Your task to perform on an android device: Open Yahoo.com Image 0: 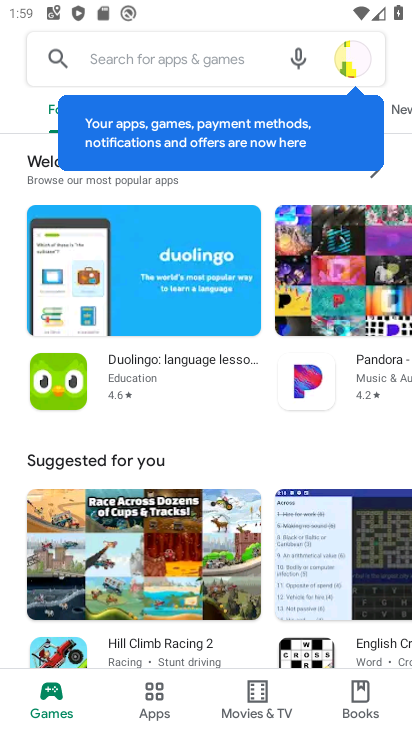
Step 0: press home button
Your task to perform on an android device: Open Yahoo.com Image 1: 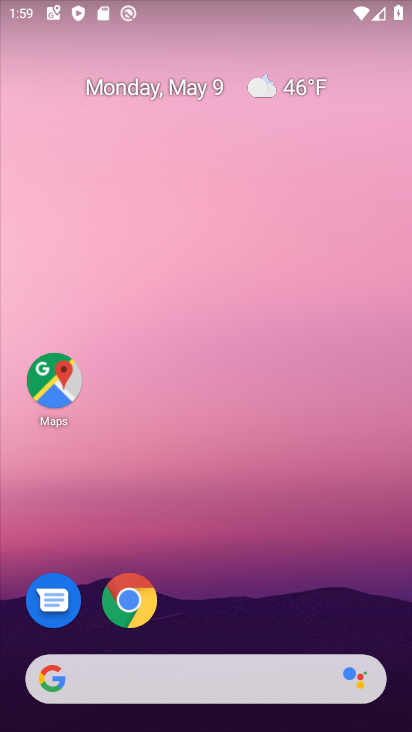
Step 1: click (135, 595)
Your task to perform on an android device: Open Yahoo.com Image 2: 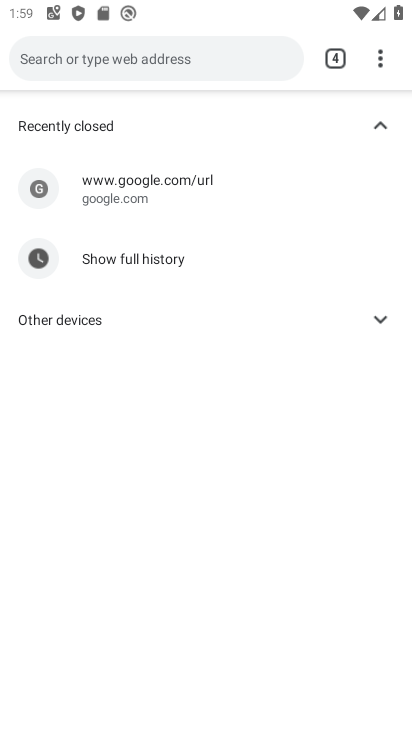
Step 2: click (336, 59)
Your task to perform on an android device: Open Yahoo.com Image 3: 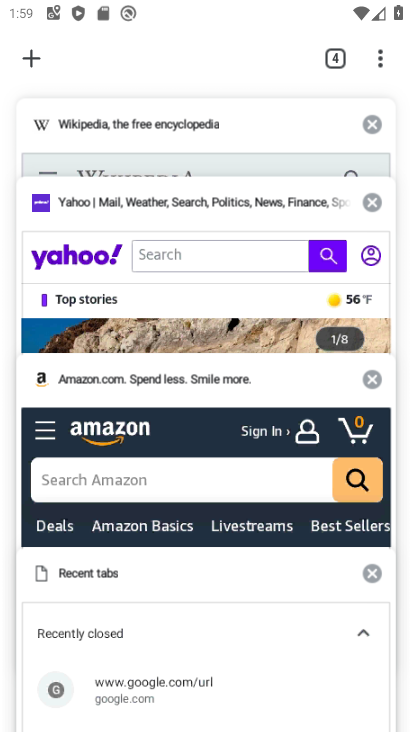
Step 3: click (91, 246)
Your task to perform on an android device: Open Yahoo.com Image 4: 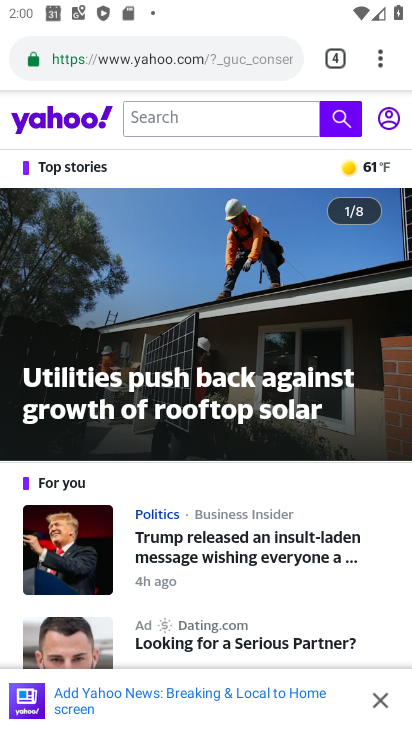
Step 4: task complete